Your task to perform on an android device: Go to Google maps Image 0: 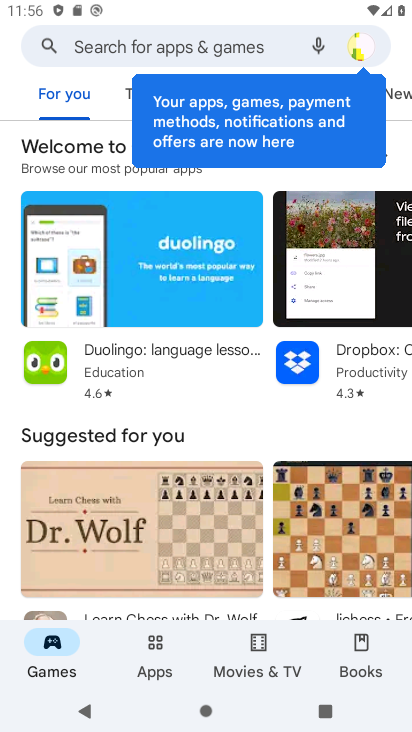
Step 0: press home button
Your task to perform on an android device: Go to Google maps Image 1: 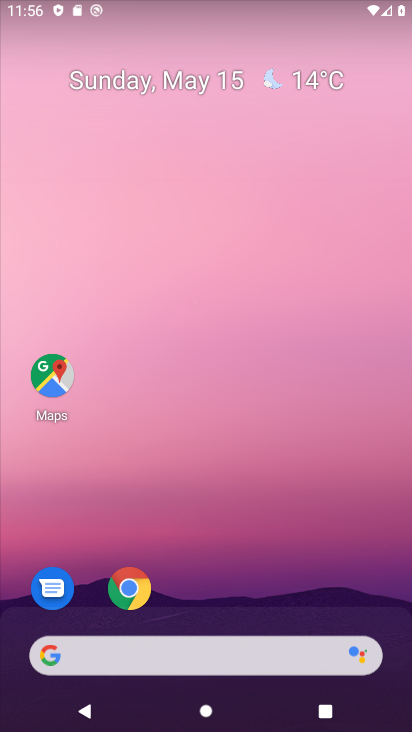
Step 1: click (41, 370)
Your task to perform on an android device: Go to Google maps Image 2: 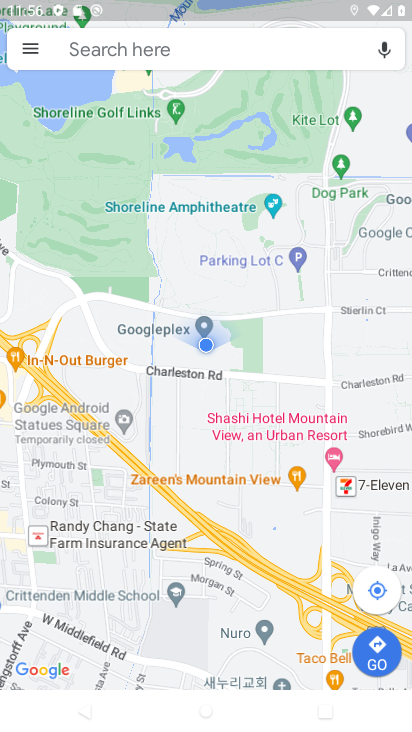
Step 2: task complete